Your task to perform on an android device: set the stopwatch Image 0: 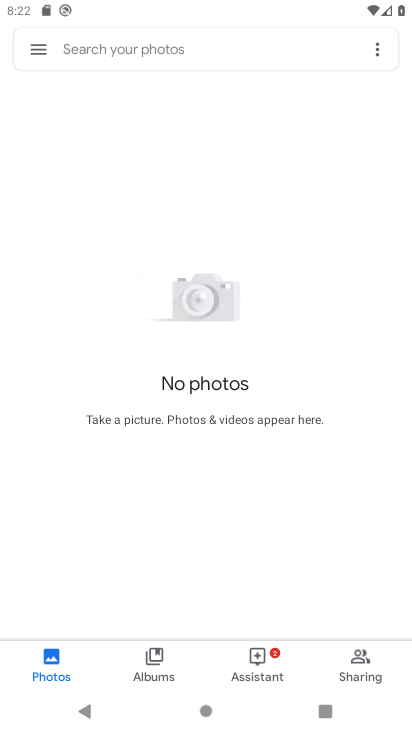
Step 0: press home button
Your task to perform on an android device: set the stopwatch Image 1: 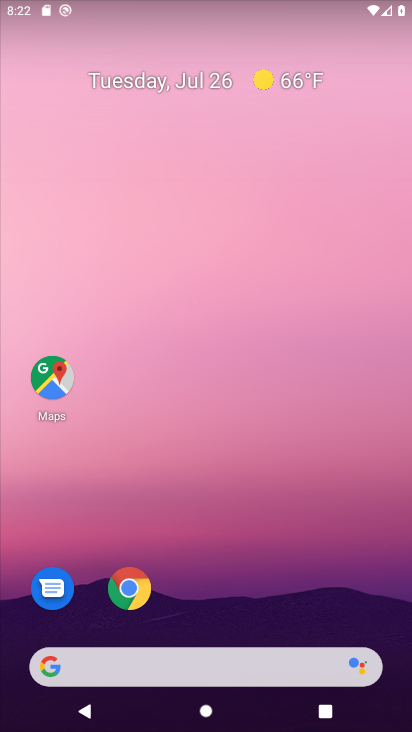
Step 1: drag from (242, 707) to (240, 132)
Your task to perform on an android device: set the stopwatch Image 2: 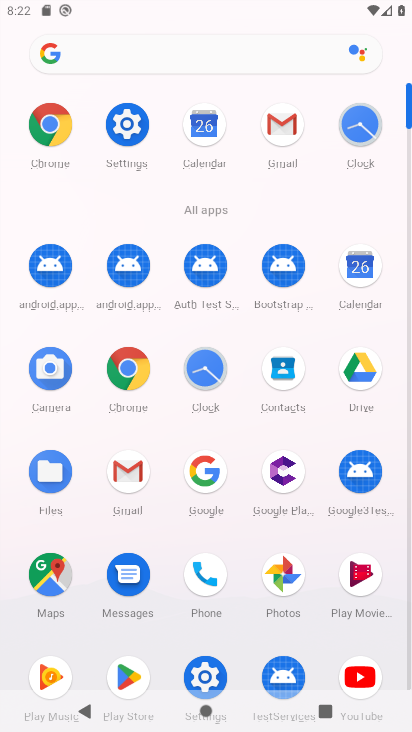
Step 2: click (204, 375)
Your task to perform on an android device: set the stopwatch Image 3: 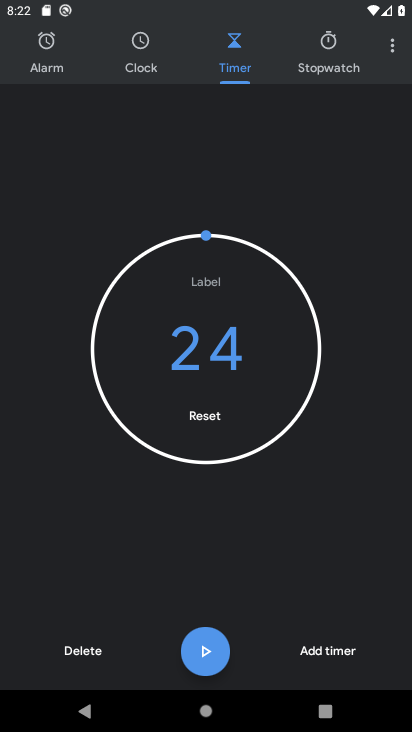
Step 3: click (329, 49)
Your task to perform on an android device: set the stopwatch Image 4: 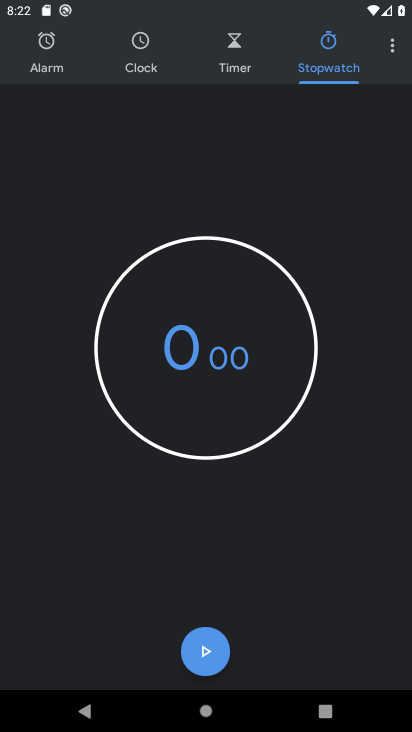
Step 4: click (197, 365)
Your task to perform on an android device: set the stopwatch Image 5: 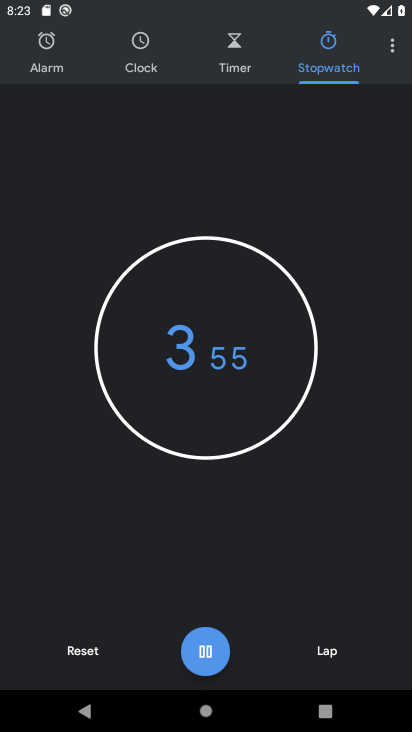
Step 5: type "767676"
Your task to perform on an android device: set the stopwatch Image 6: 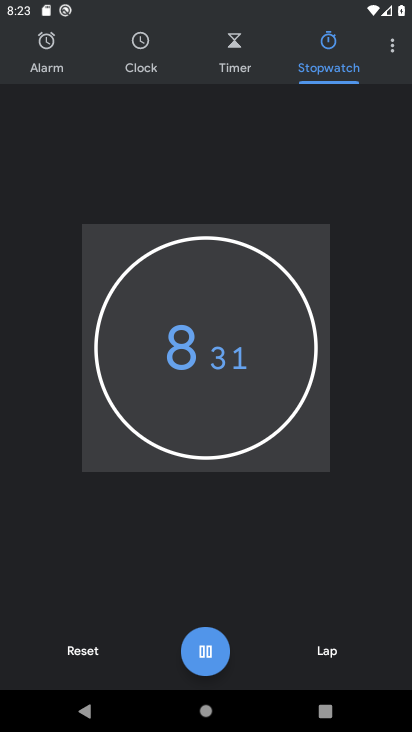
Step 6: task complete